Your task to perform on an android device: all mails in gmail Image 0: 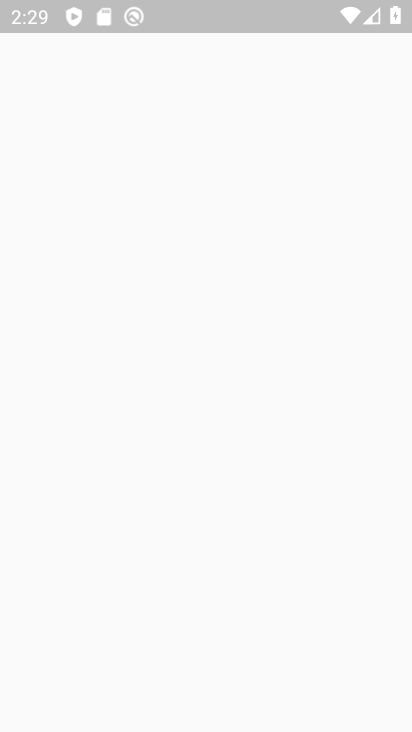
Step 0: press home button
Your task to perform on an android device: all mails in gmail Image 1: 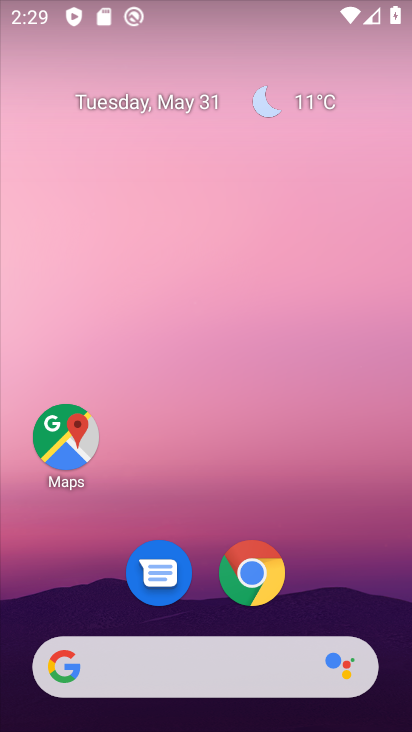
Step 1: drag from (353, 610) to (243, 71)
Your task to perform on an android device: all mails in gmail Image 2: 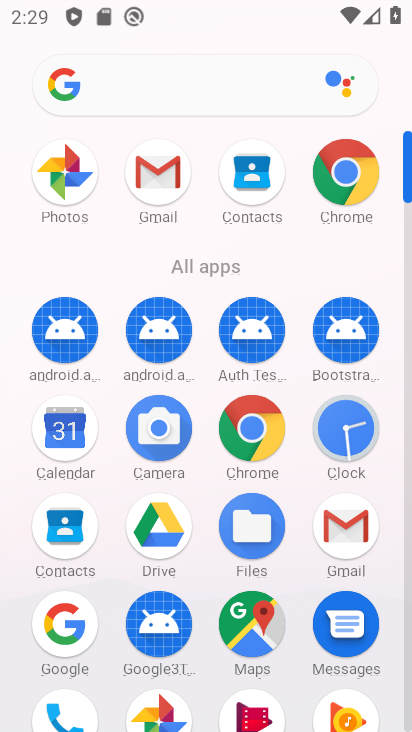
Step 2: click (153, 183)
Your task to perform on an android device: all mails in gmail Image 3: 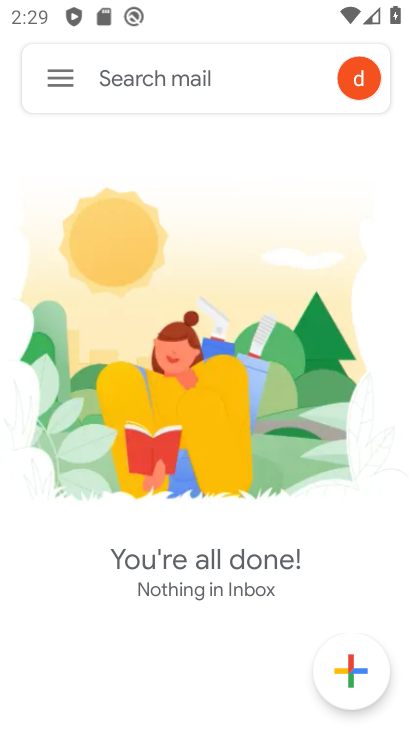
Step 3: click (62, 76)
Your task to perform on an android device: all mails in gmail Image 4: 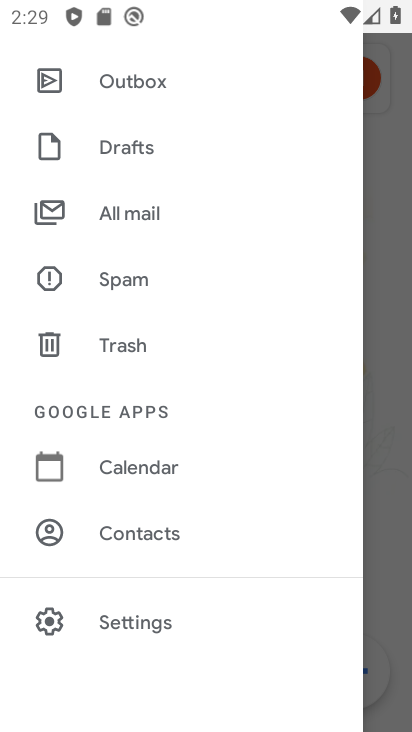
Step 4: click (137, 228)
Your task to perform on an android device: all mails in gmail Image 5: 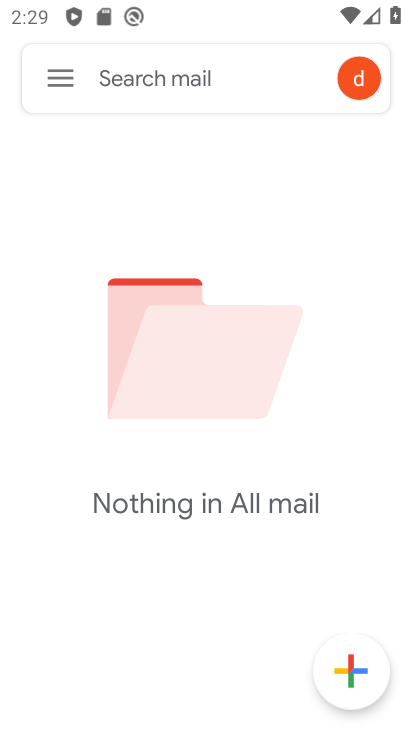
Step 5: task complete